Your task to perform on an android device: turn off location history Image 0: 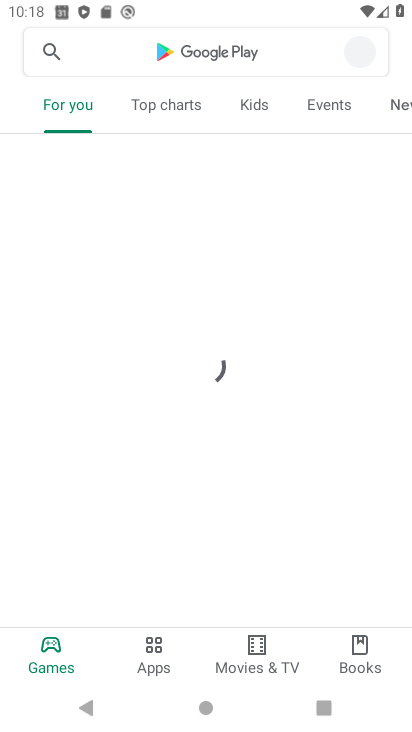
Step 0: press home button
Your task to perform on an android device: turn off location history Image 1: 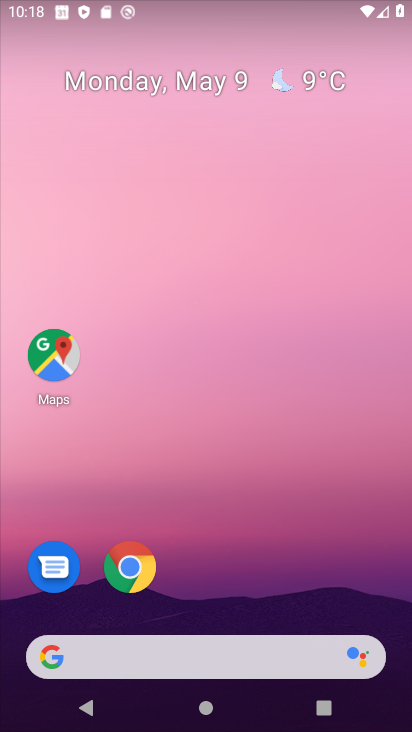
Step 1: drag from (195, 617) to (203, 20)
Your task to perform on an android device: turn off location history Image 2: 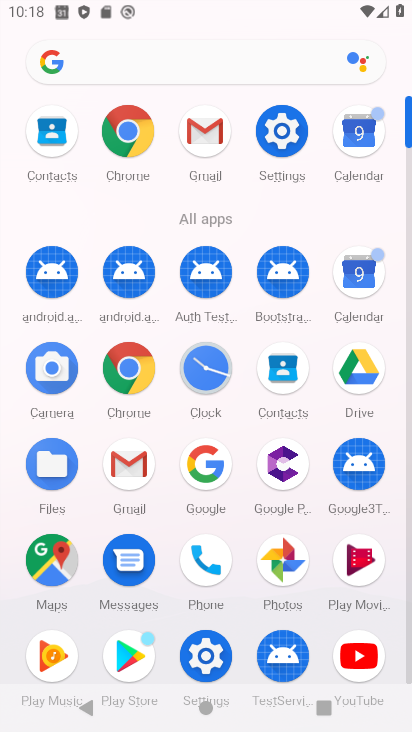
Step 2: click (280, 126)
Your task to perform on an android device: turn off location history Image 3: 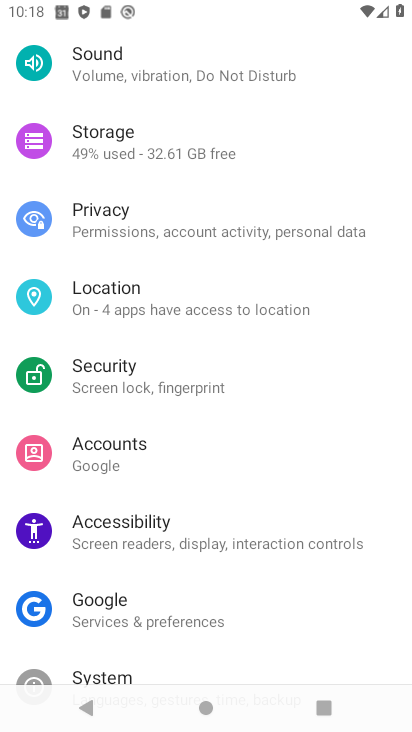
Step 3: click (153, 292)
Your task to perform on an android device: turn off location history Image 4: 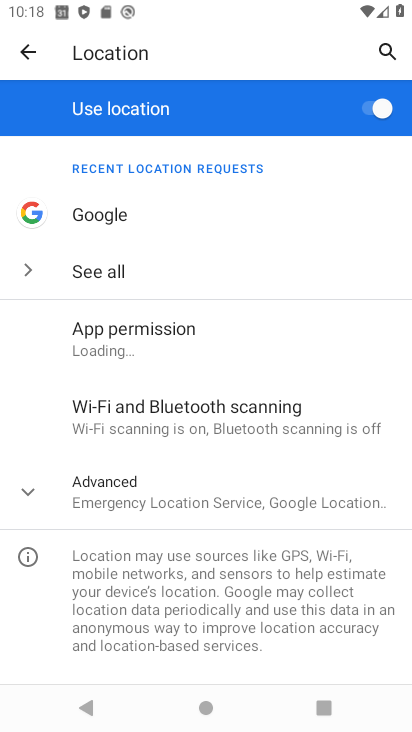
Step 4: click (29, 484)
Your task to perform on an android device: turn off location history Image 5: 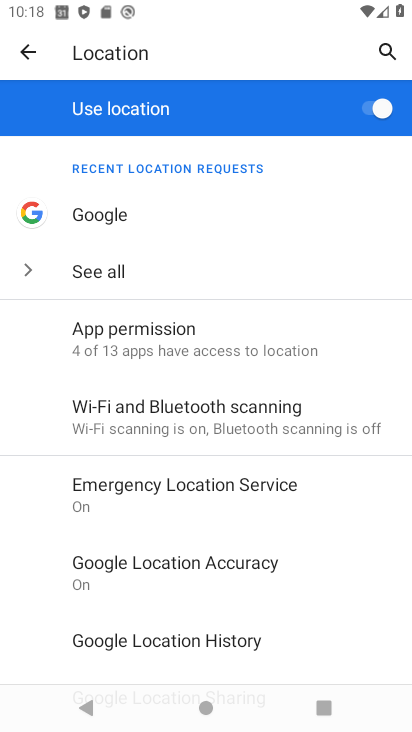
Step 5: click (268, 636)
Your task to perform on an android device: turn off location history Image 6: 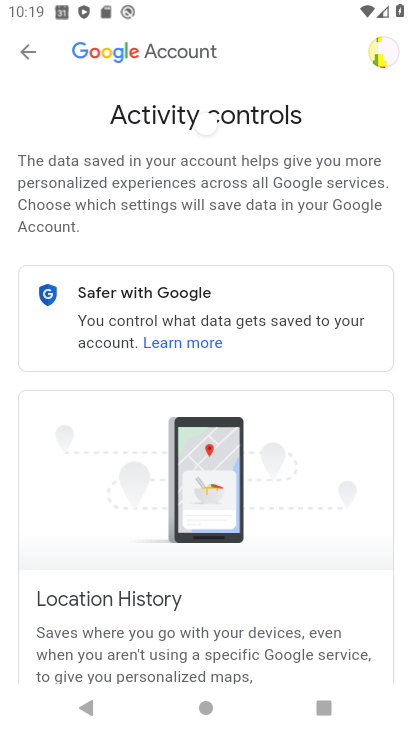
Step 6: drag from (211, 606) to (274, 124)
Your task to perform on an android device: turn off location history Image 7: 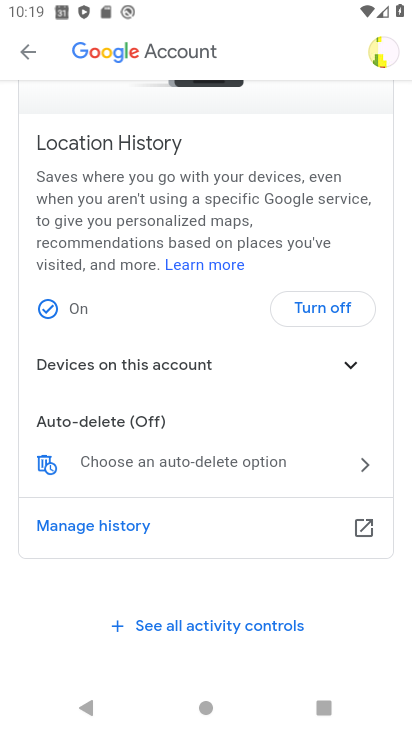
Step 7: click (323, 309)
Your task to perform on an android device: turn off location history Image 8: 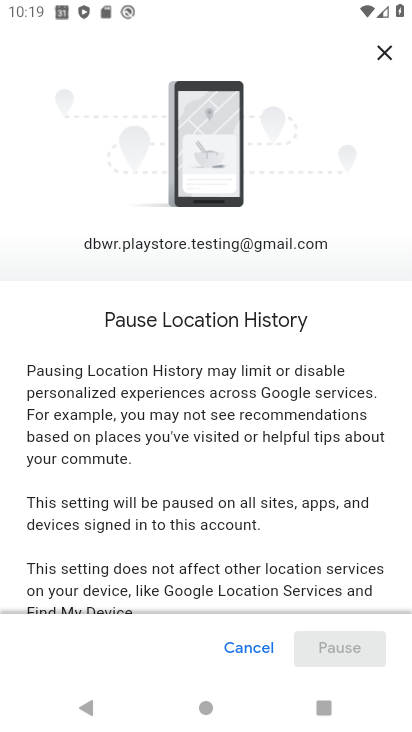
Step 8: drag from (234, 580) to (271, 182)
Your task to perform on an android device: turn off location history Image 9: 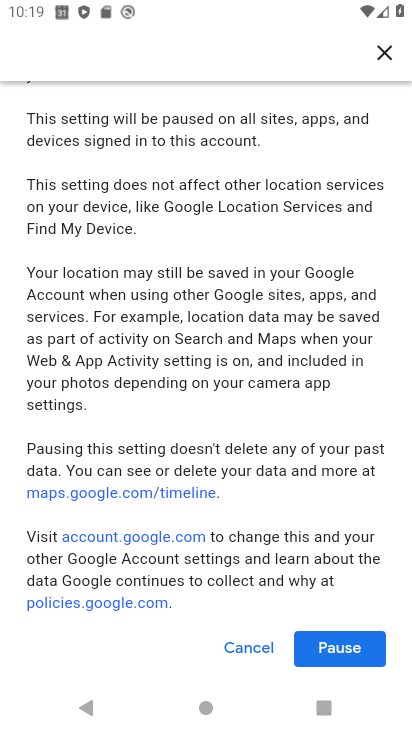
Step 9: drag from (255, 533) to (289, 104)
Your task to perform on an android device: turn off location history Image 10: 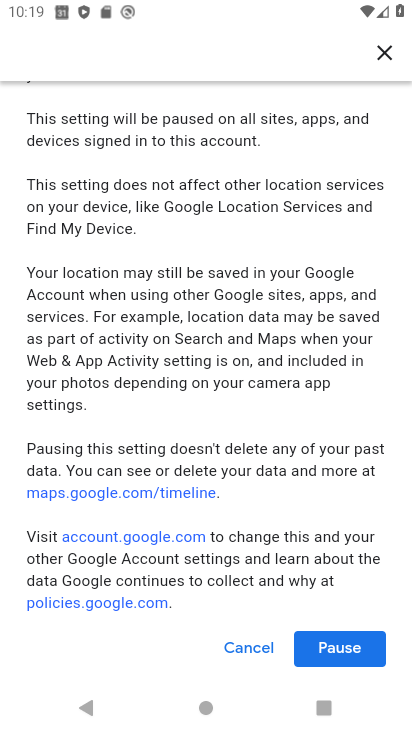
Step 10: click (345, 640)
Your task to perform on an android device: turn off location history Image 11: 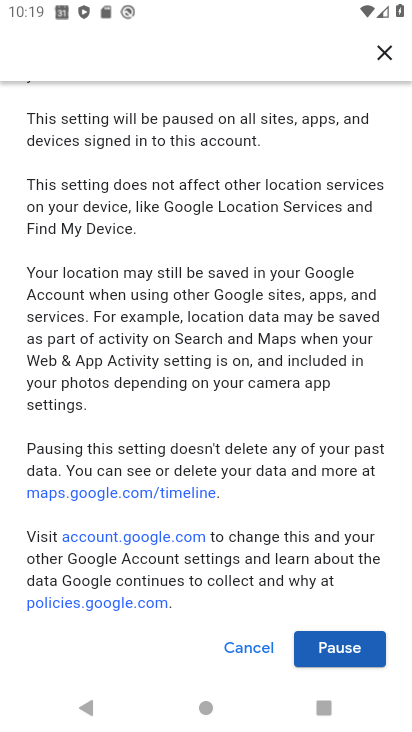
Step 11: click (337, 652)
Your task to perform on an android device: turn off location history Image 12: 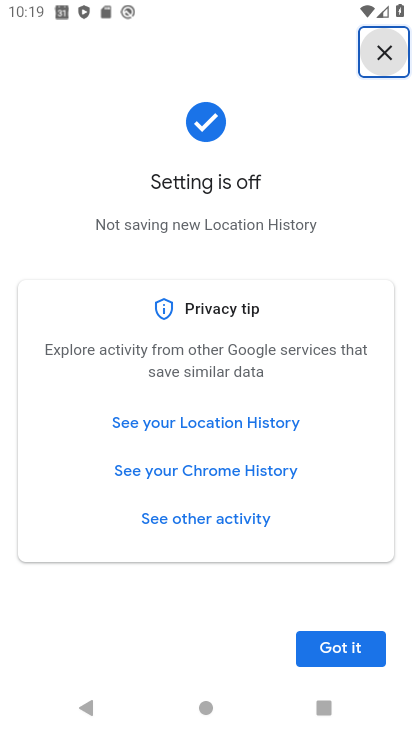
Step 12: click (344, 652)
Your task to perform on an android device: turn off location history Image 13: 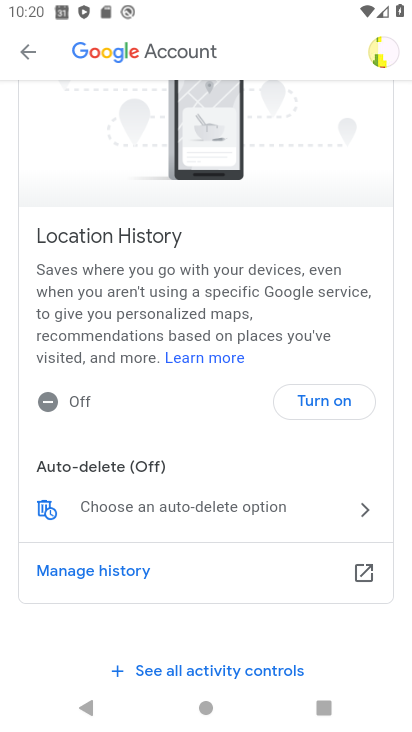
Step 13: task complete